Your task to perform on an android device: toggle location history Image 0: 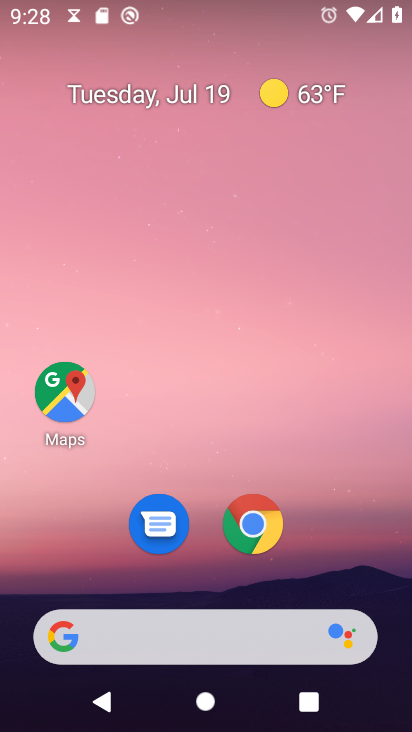
Step 0: click (69, 393)
Your task to perform on an android device: toggle location history Image 1: 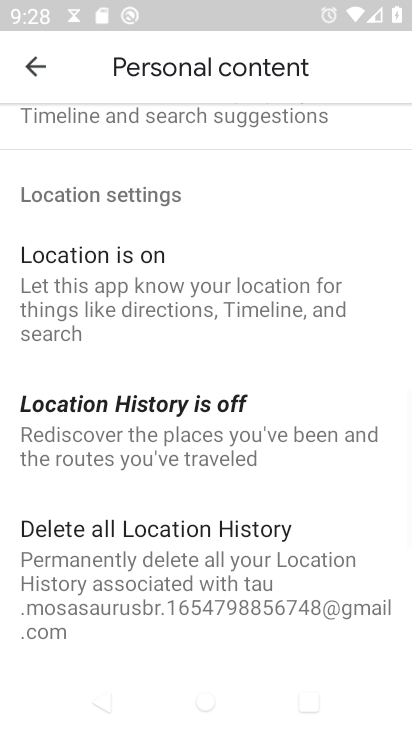
Step 1: click (166, 422)
Your task to perform on an android device: toggle location history Image 2: 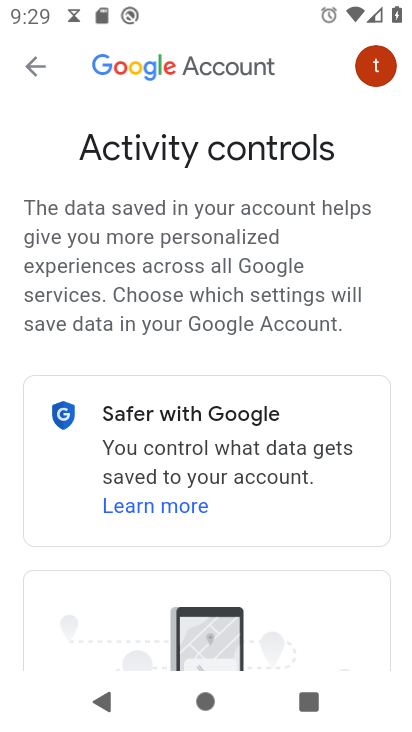
Step 2: drag from (98, 603) to (229, 188)
Your task to perform on an android device: toggle location history Image 3: 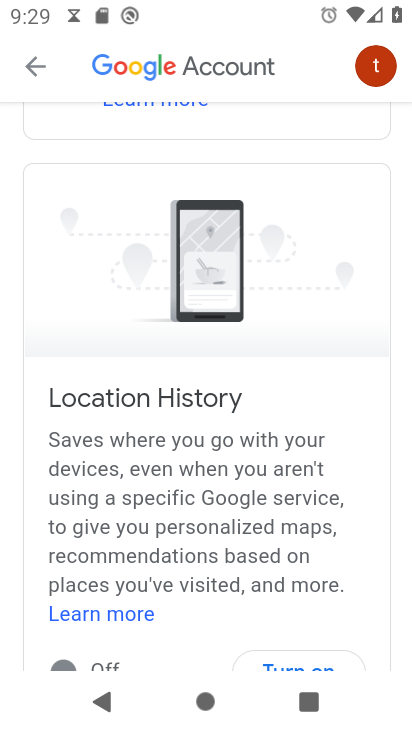
Step 3: drag from (218, 530) to (336, 163)
Your task to perform on an android device: toggle location history Image 4: 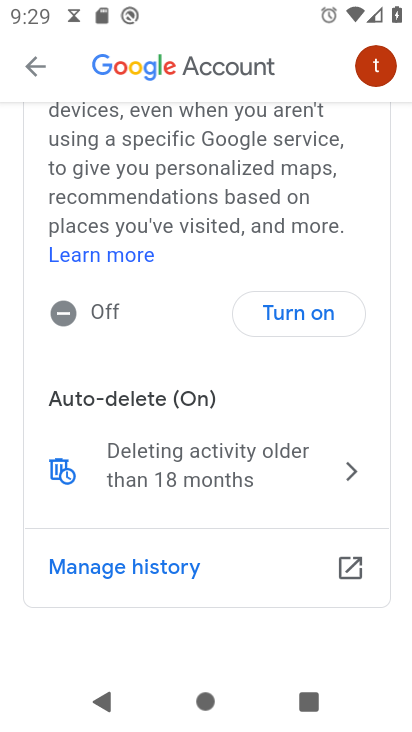
Step 4: click (304, 314)
Your task to perform on an android device: toggle location history Image 5: 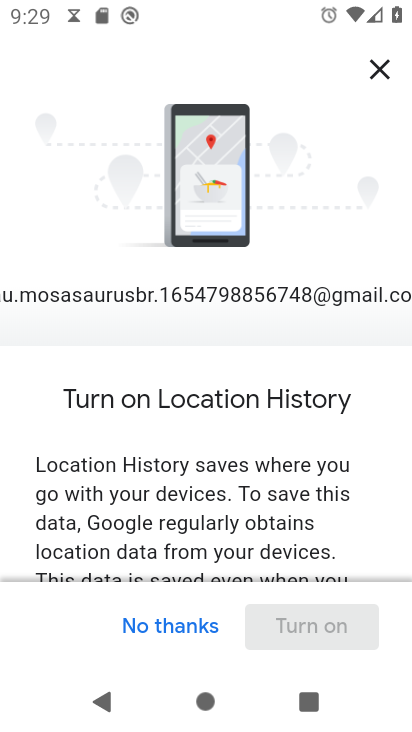
Step 5: drag from (234, 529) to (339, 63)
Your task to perform on an android device: toggle location history Image 6: 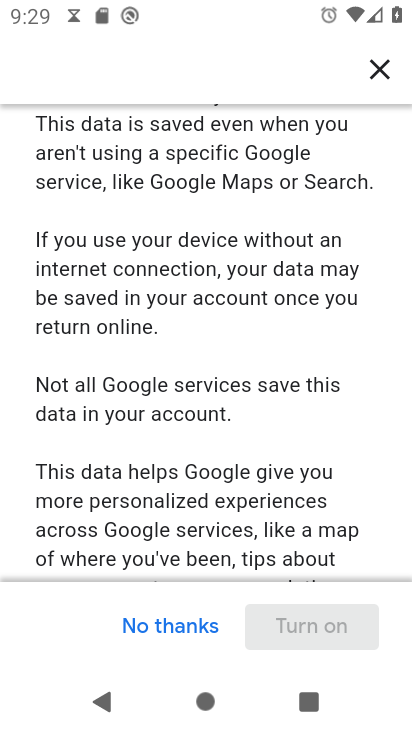
Step 6: drag from (249, 537) to (339, 97)
Your task to perform on an android device: toggle location history Image 7: 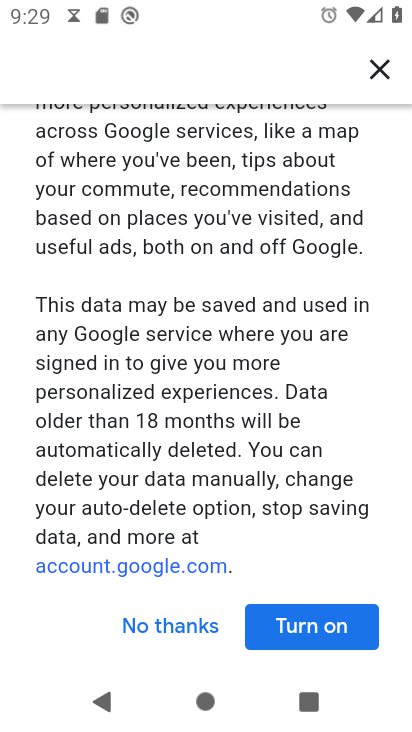
Step 7: click (318, 624)
Your task to perform on an android device: toggle location history Image 8: 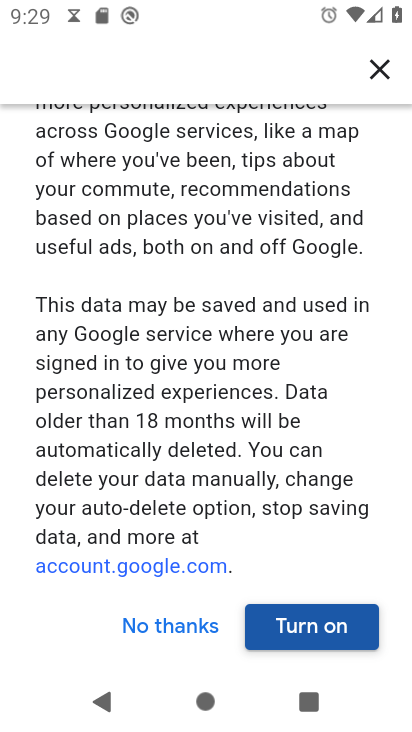
Step 8: click (313, 633)
Your task to perform on an android device: toggle location history Image 9: 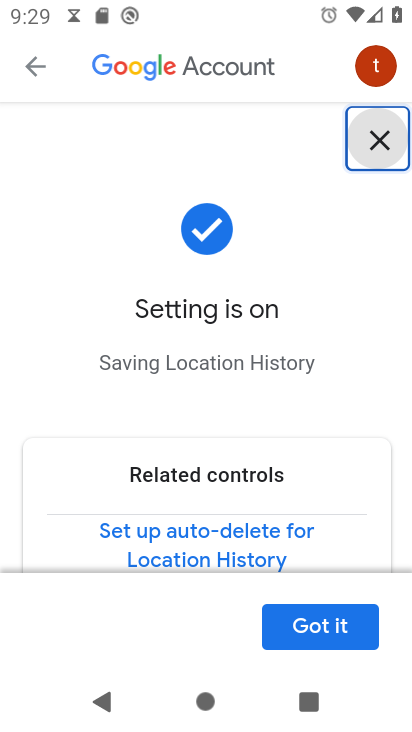
Step 9: click (331, 635)
Your task to perform on an android device: toggle location history Image 10: 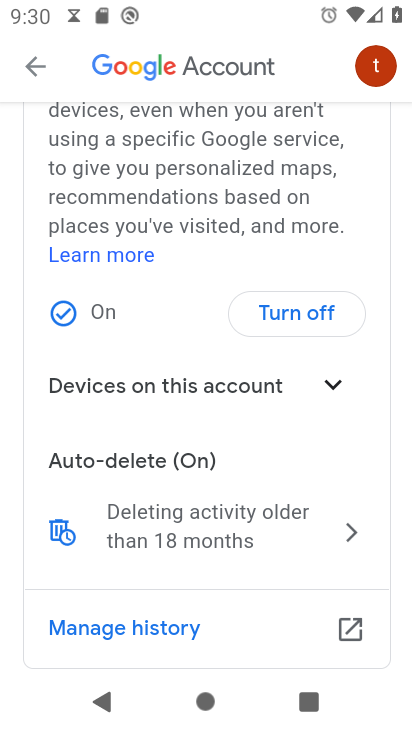
Step 10: task complete